Your task to perform on an android device: Open Google Maps and go to "Timeline" Image 0: 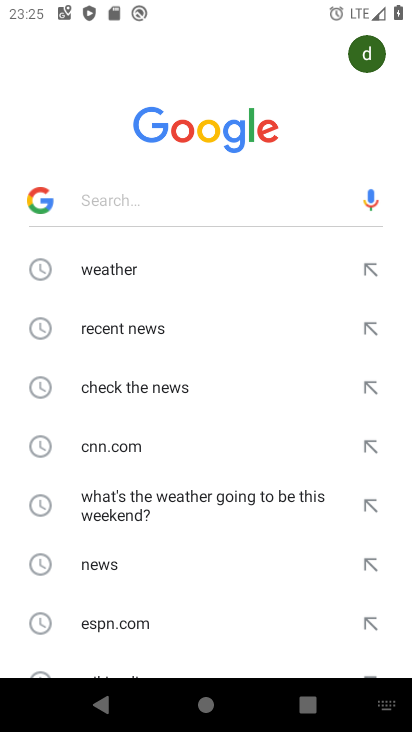
Step 0: press home button
Your task to perform on an android device: Open Google Maps and go to "Timeline" Image 1: 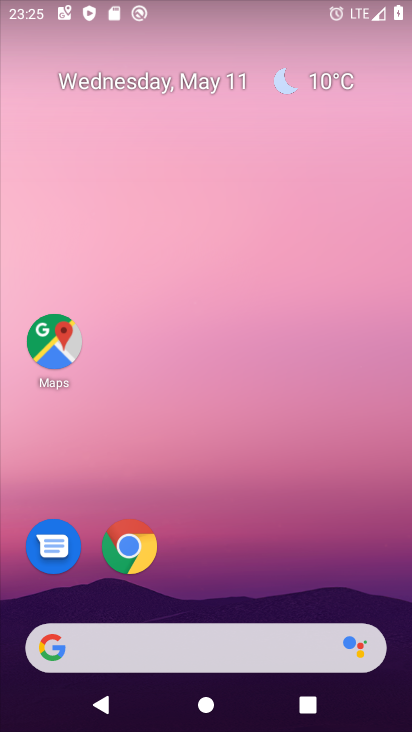
Step 1: click (52, 336)
Your task to perform on an android device: Open Google Maps and go to "Timeline" Image 2: 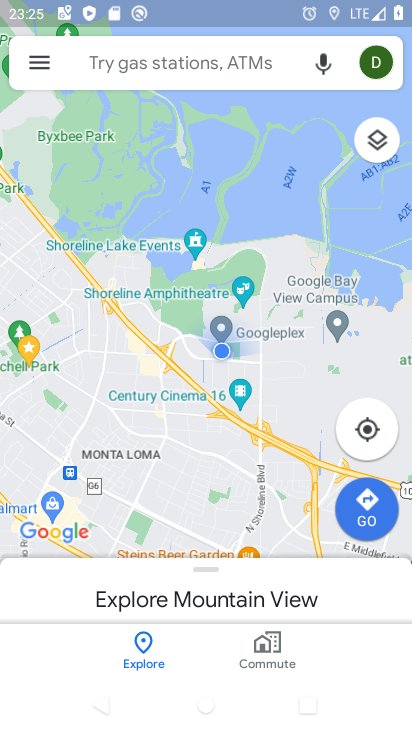
Step 2: click (36, 57)
Your task to perform on an android device: Open Google Maps and go to "Timeline" Image 3: 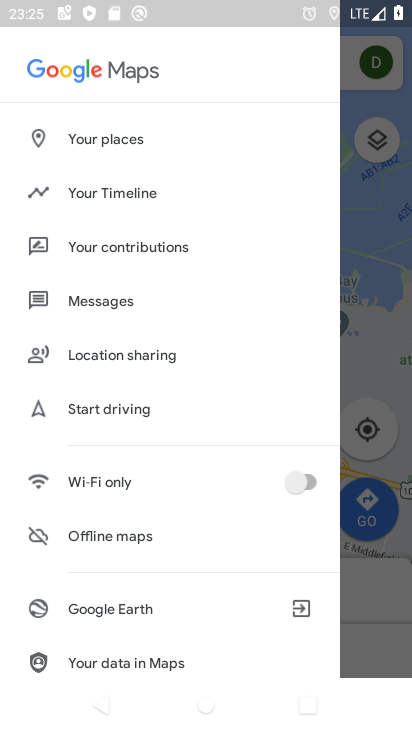
Step 3: click (94, 194)
Your task to perform on an android device: Open Google Maps and go to "Timeline" Image 4: 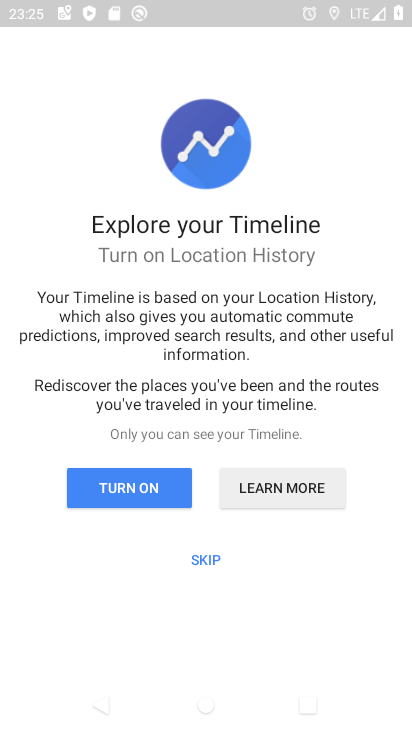
Step 4: click (199, 559)
Your task to perform on an android device: Open Google Maps and go to "Timeline" Image 5: 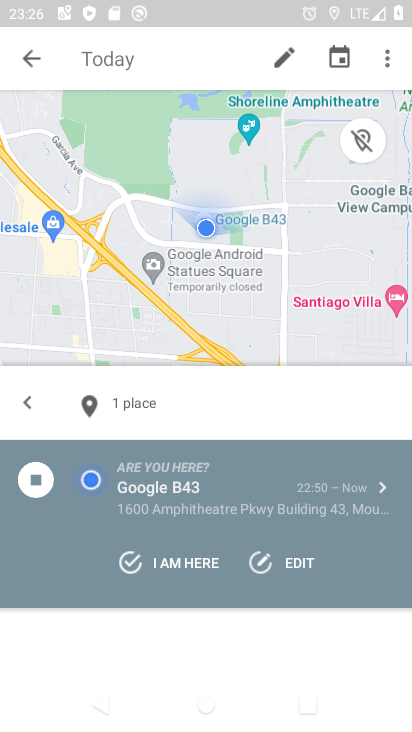
Step 5: task complete